Your task to perform on an android device: Open Android settings Image 0: 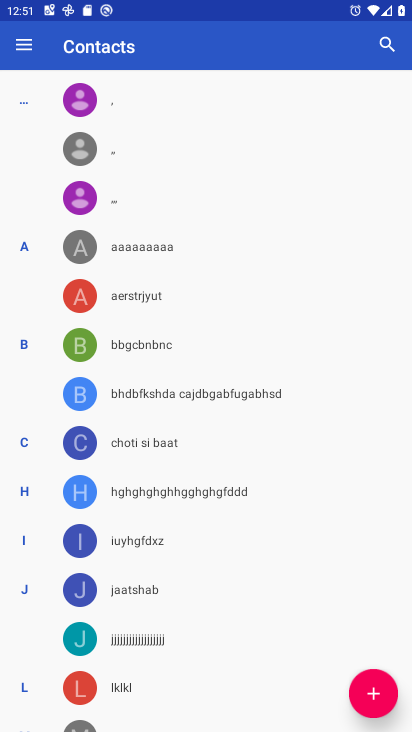
Step 0: press home button
Your task to perform on an android device: Open Android settings Image 1: 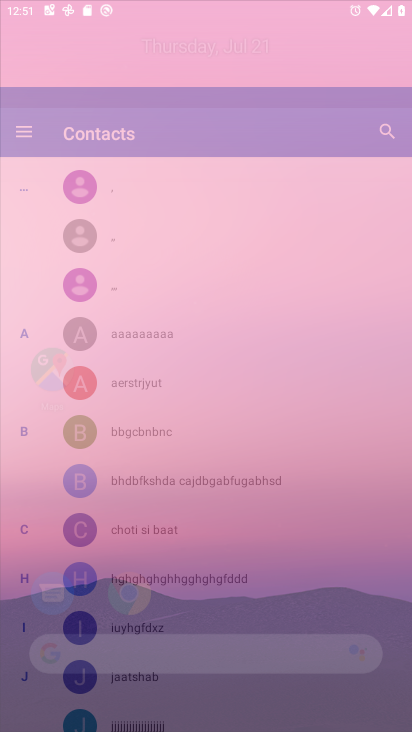
Step 1: drag from (243, 633) to (268, 169)
Your task to perform on an android device: Open Android settings Image 2: 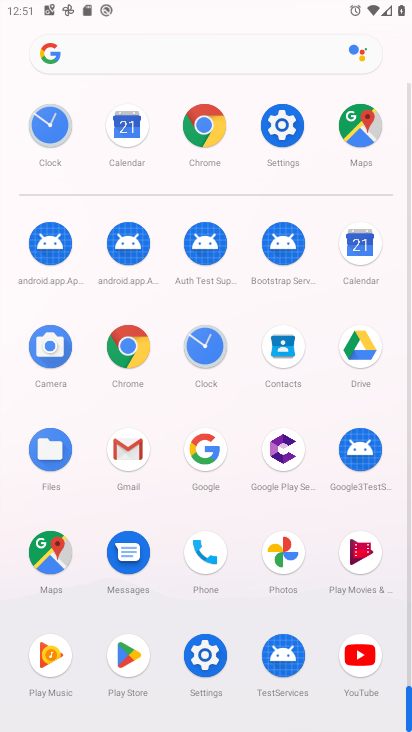
Step 2: click (281, 120)
Your task to perform on an android device: Open Android settings Image 3: 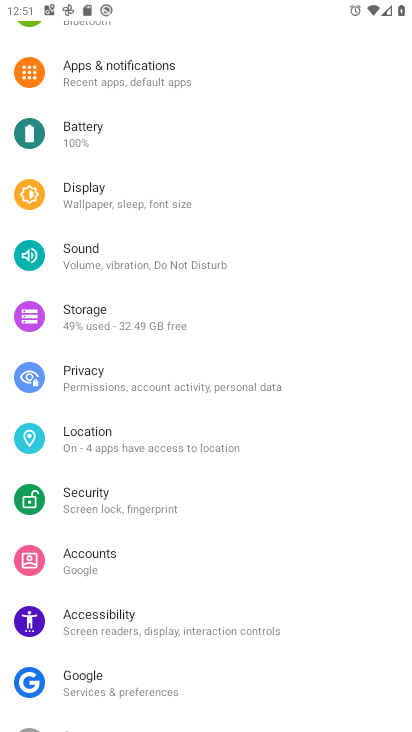
Step 3: drag from (96, 580) to (339, 2)
Your task to perform on an android device: Open Android settings Image 4: 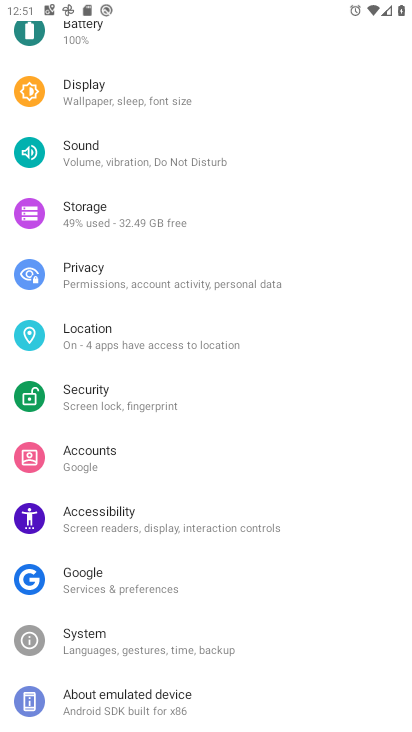
Step 4: click (158, 683)
Your task to perform on an android device: Open Android settings Image 5: 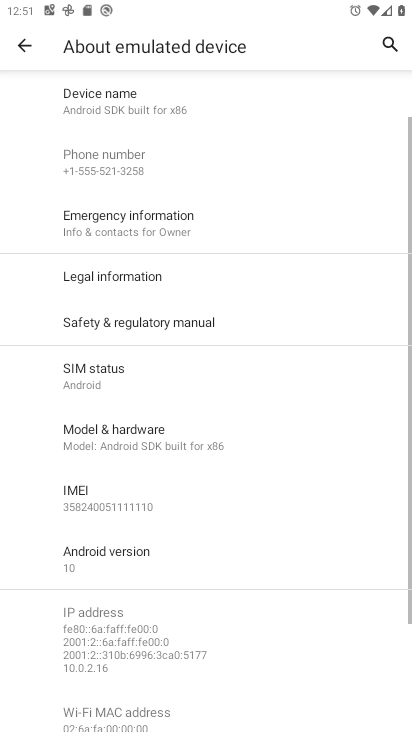
Step 5: click (126, 549)
Your task to perform on an android device: Open Android settings Image 6: 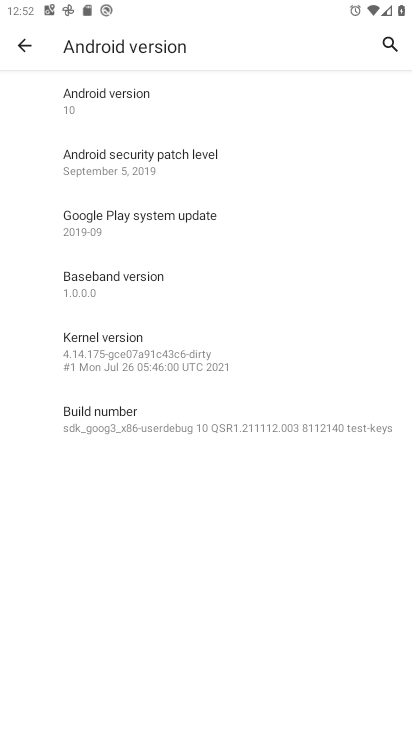
Step 6: drag from (155, 564) to (307, 86)
Your task to perform on an android device: Open Android settings Image 7: 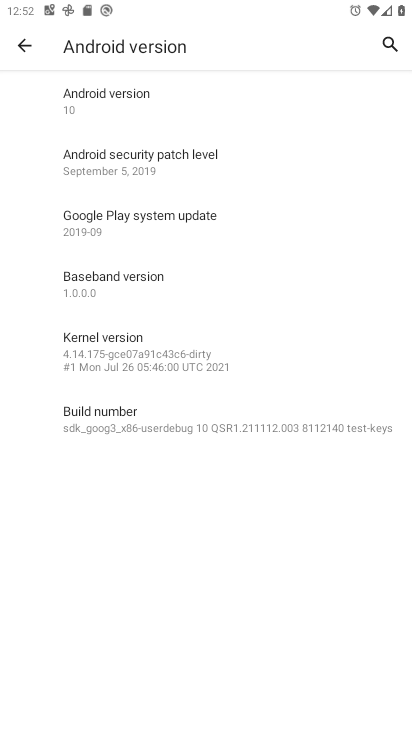
Step 7: click (198, 96)
Your task to perform on an android device: Open Android settings Image 8: 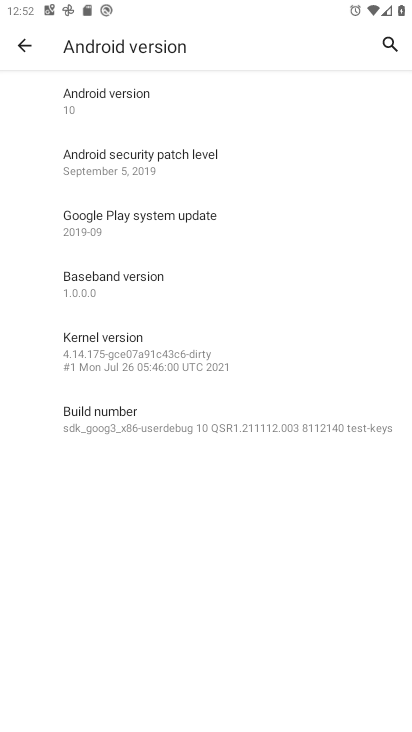
Step 8: task complete